Your task to perform on an android device: check android version Image 0: 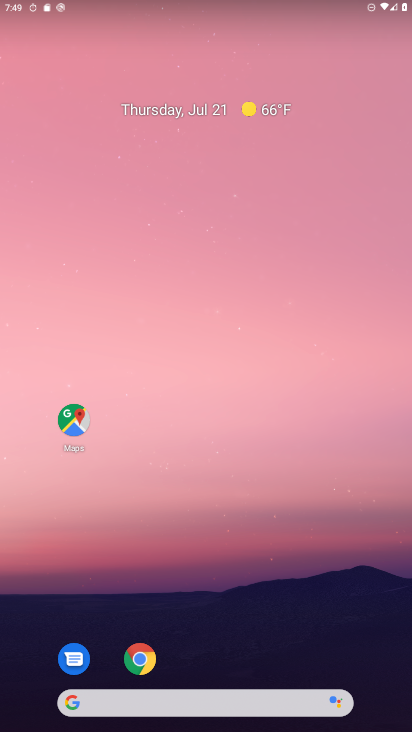
Step 0: drag from (178, 672) to (179, 103)
Your task to perform on an android device: check android version Image 1: 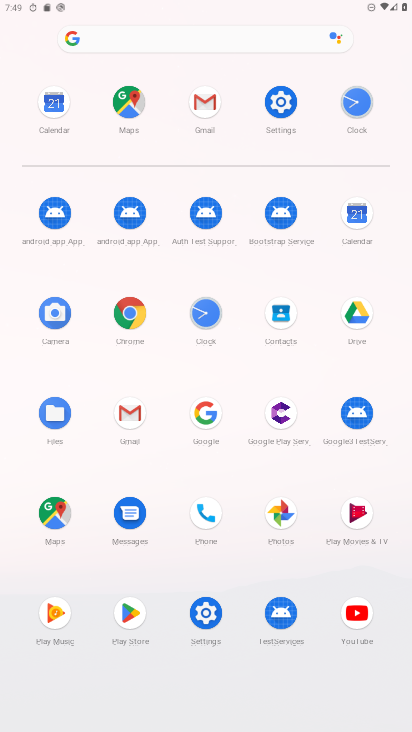
Step 1: click (275, 101)
Your task to perform on an android device: check android version Image 2: 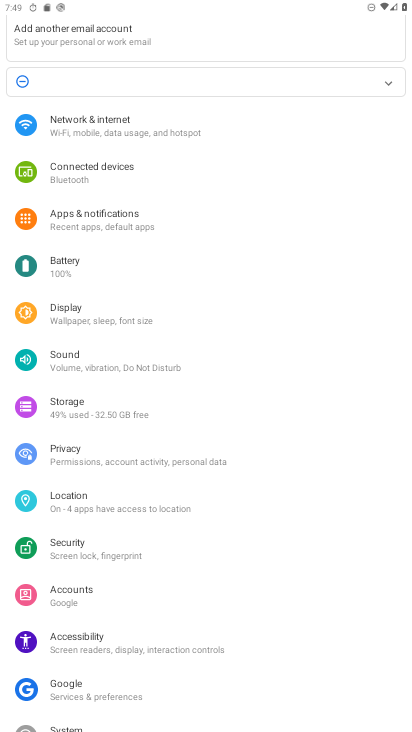
Step 2: drag from (159, 589) to (263, 14)
Your task to perform on an android device: check android version Image 3: 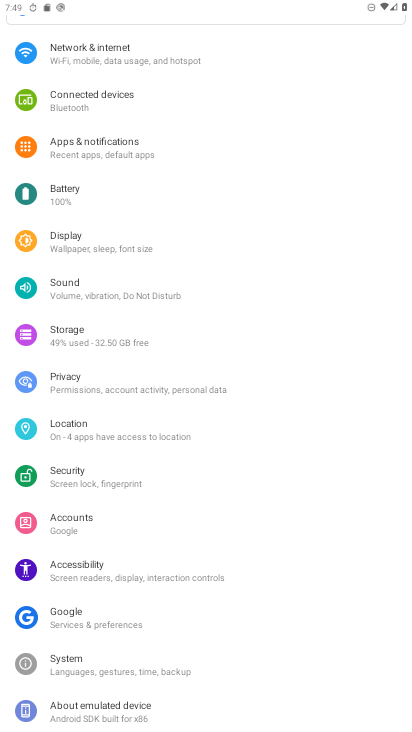
Step 3: click (137, 705)
Your task to perform on an android device: check android version Image 4: 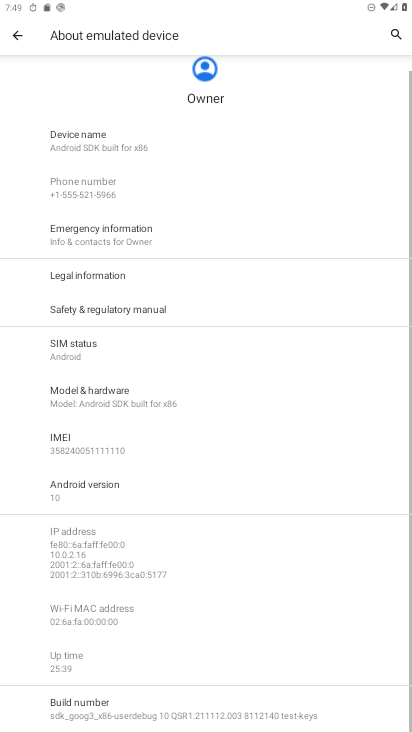
Step 4: click (115, 491)
Your task to perform on an android device: check android version Image 5: 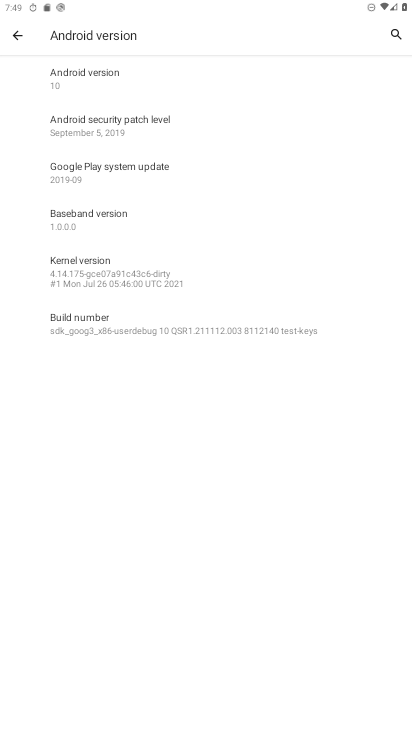
Step 5: click (129, 78)
Your task to perform on an android device: check android version Image 6: 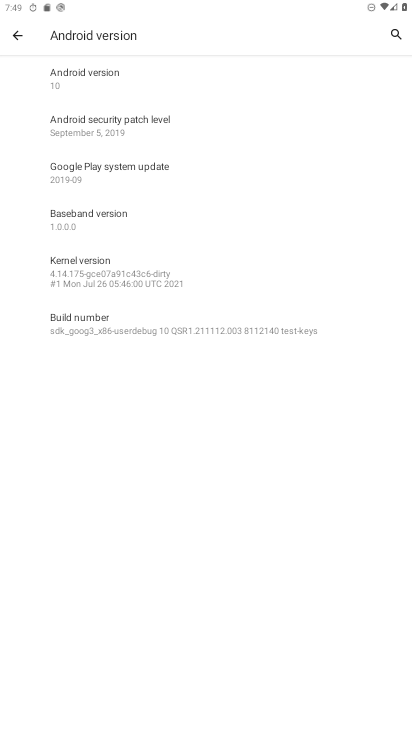
Step 6: click (130, 80)
Your task to perform on an android device: check android version Image 7: 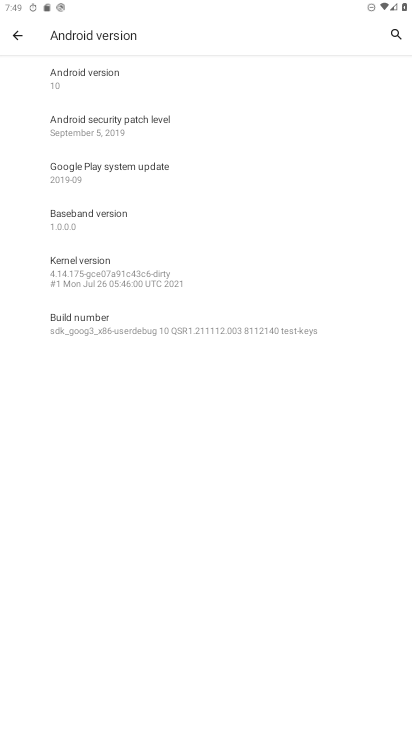
Step 7: task complete